Your task to perform on an android device: Check the weather Image 0: 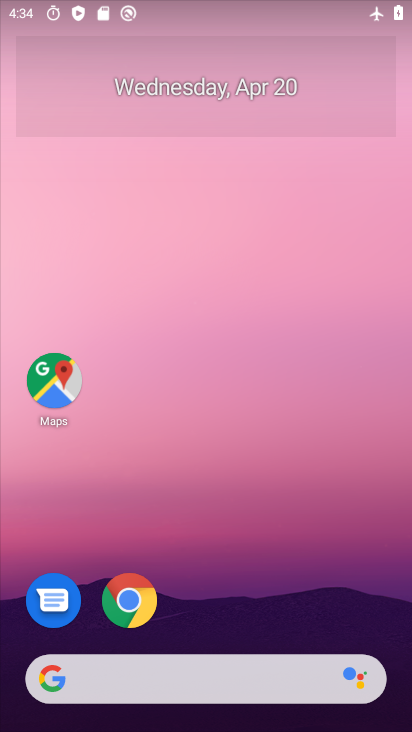
Step 0: drag from (292, 407) to (344, 70)
Your task to perform on an android device: Check the weather Image 1: 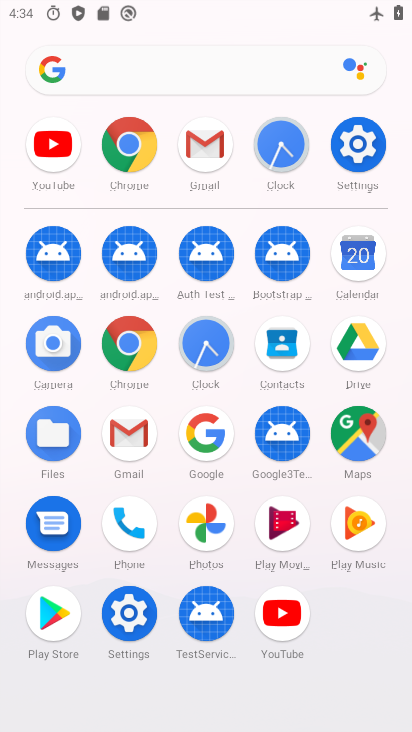
Step 1: click (134, 352)
Your task to perform on an android device: Check the weather Image 2: 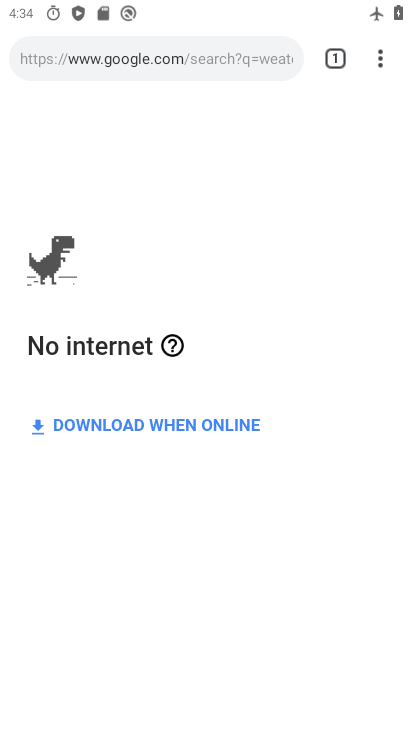
Step 2: click (173, 53)
Your task to perform on an android device: Check the weather Image 3: 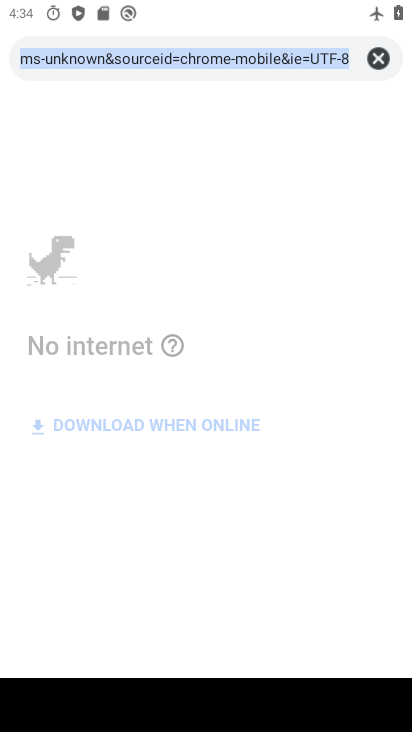
Step 3: type "weather"
Your task to perform on an android device: Check the weather Image 4: 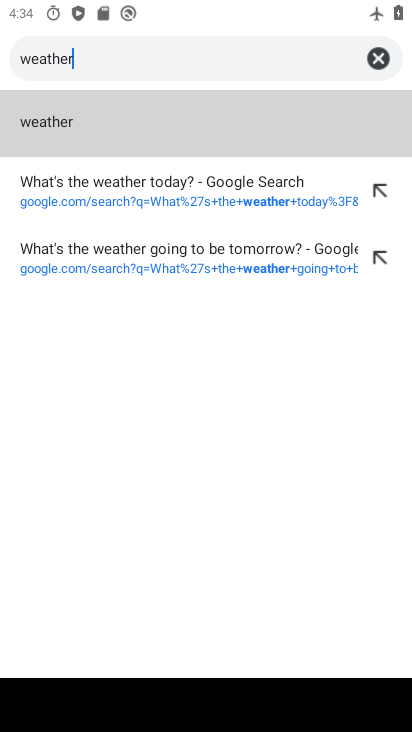
Step 4: click (46, 122)
Your task to perform on an android device: Check the weather Image 5: 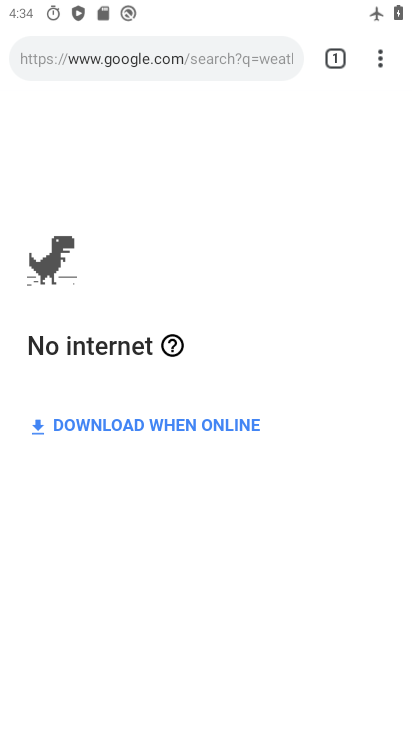
Step 5: task complete